Your task to perform on an android device: What is the recent news? Image 0: 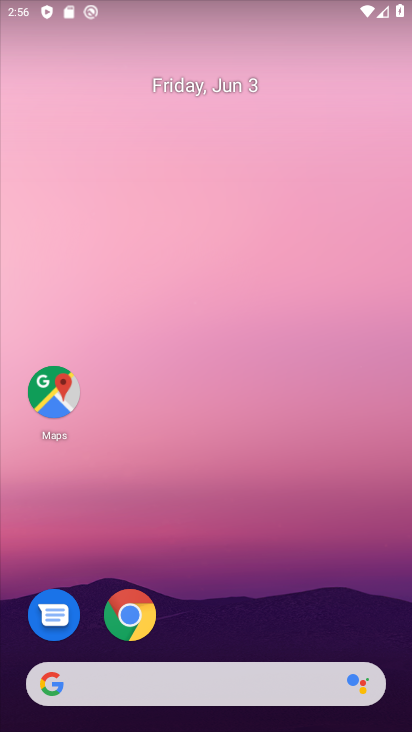
Step 0: click (119, 618)
Your task to perform on an android device: What is the recent news? Image 1: 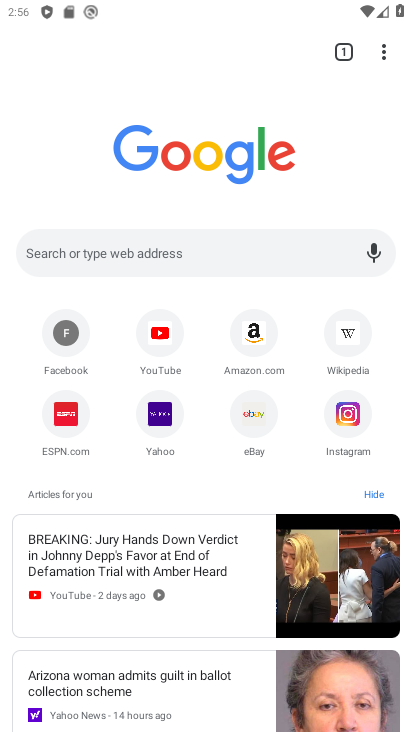
Step 1: click (136, 250)
Your task to perform on an android device: What is the recent news? Image 2: 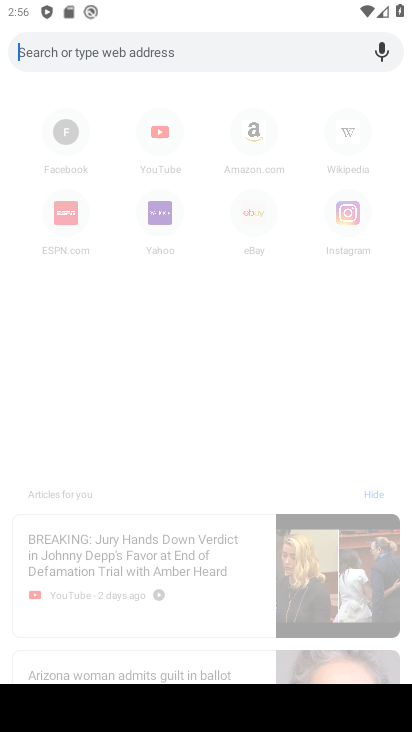
Step 2: type "What is the recent news?"
Your task to perform on an android device: What is the recent news? Image 3: 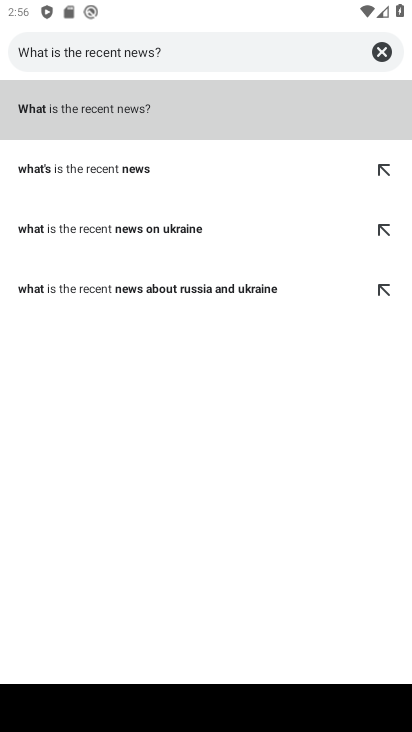
Step 3: click (206, 107)
Your task to perform on an android device: What is the recent news? Image 4: 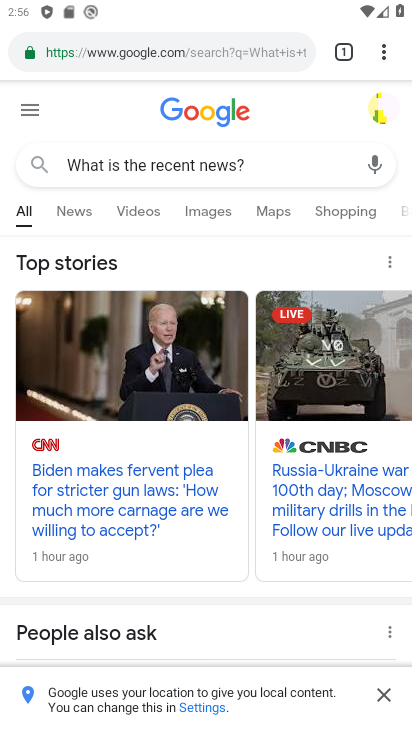
Step 4: task complete